Your task to perform on an android device: Show me recent news Image 0: 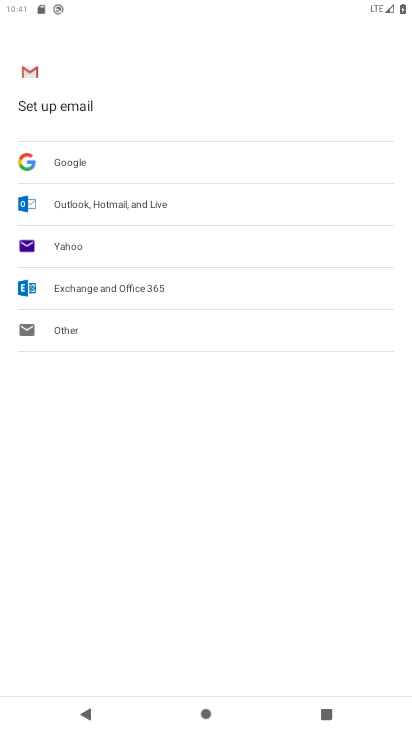
Step 0: press home button
Your task to perform on an android device: Show me recent news Image 1: 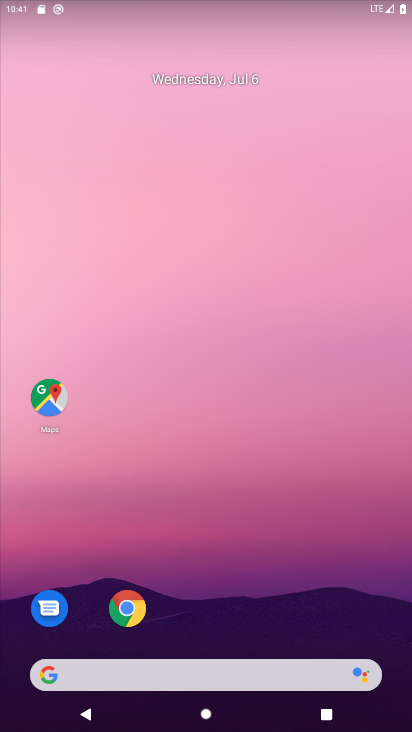
Step 1: click (173, 668)
Your task to perform on an android device: Show me recent news Image 2: 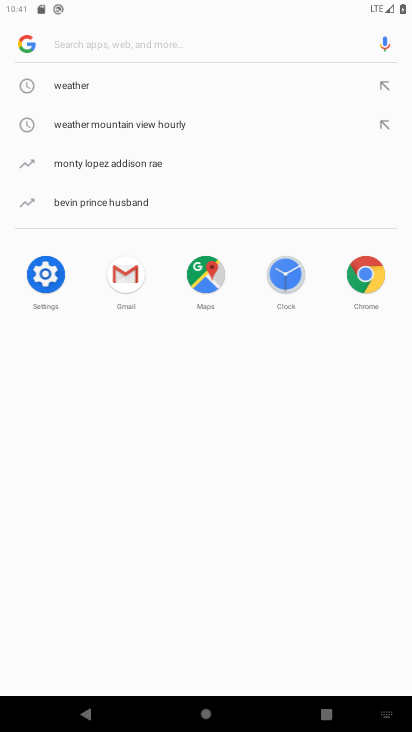
Step 2: type "recent news"
Your task to perform on an android device: Show me recent news Image 3: 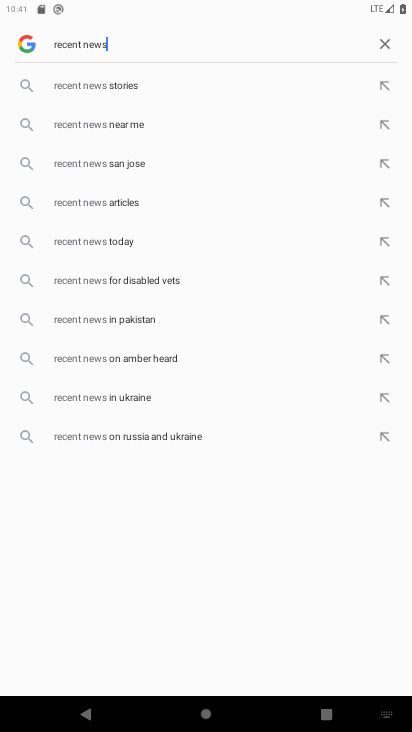
Step 3: click (117, 132)
Your task to perform on an android device: Show me recent news Image 4: 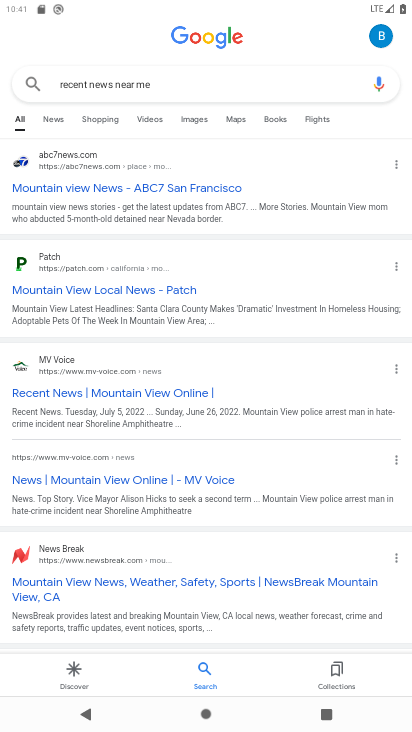
Step 4: task complete